Your task to perform on an android device: create a new album in the google photos Image 0: 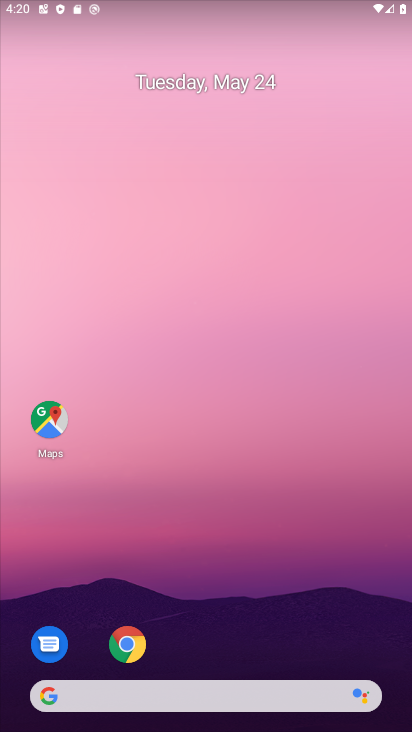
Step 0: drag from (214, 676) to (186, 439)
Your task to perform on an android device: create a new album in the google photos Image 1: 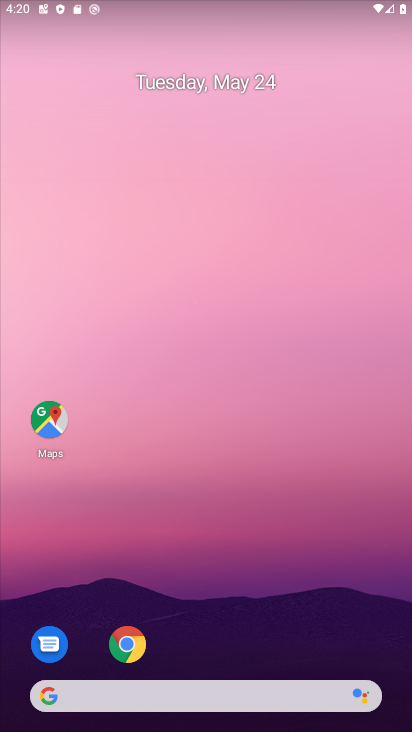
Step 1: drag from (224, 625) to (178, 233)
Your task to perform on an android device: create a new album in the google photos Image 2: 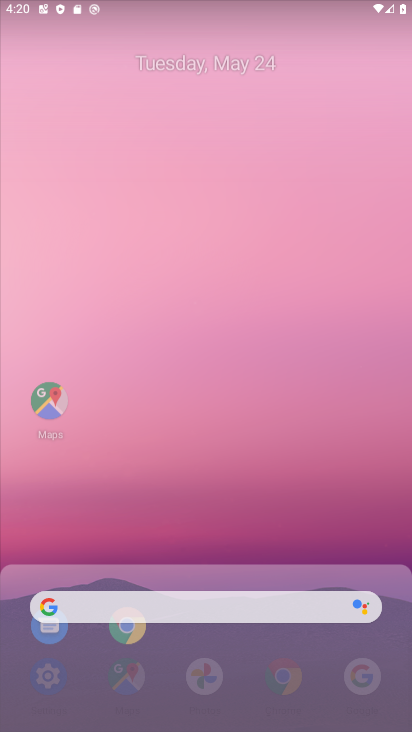
Step 2: click (191, 171)
Your task to perform on an android device: create a new album in the google photos Image 3: 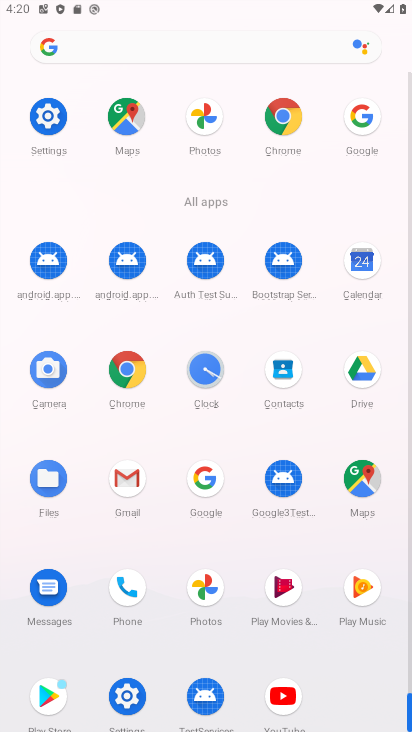
Step 3: drag from (245, 642) to (241, 125)
Your task to perform on an android device: create a new album in the google photos Image 4: 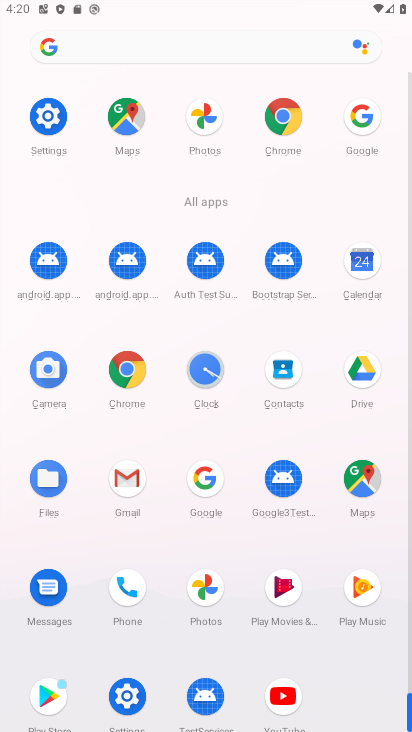
Step 4: drag from (288, 524) to (204, 39)
Your task to perform on an android device: create a new album in the google photos Image 5: 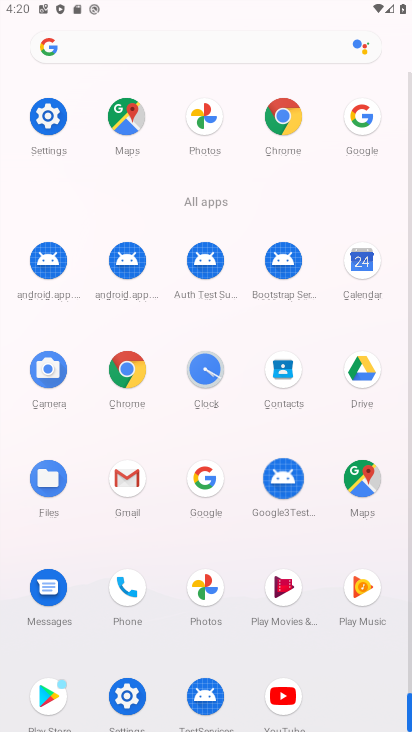
Step 5: drag from (208, 571) to (120, 53)
Your task to perform on an android device: create a new album in the google photos Image 6: 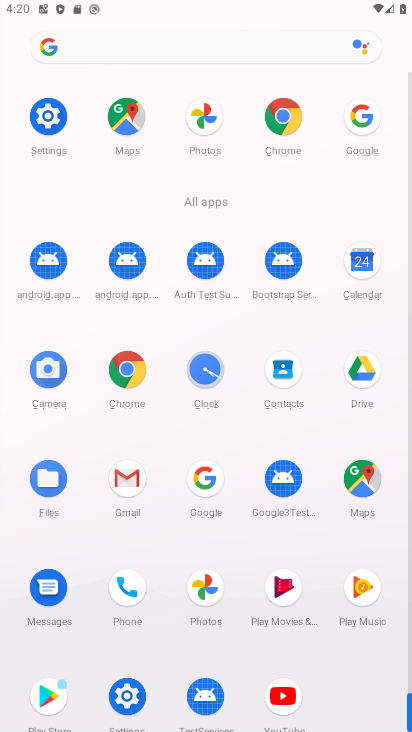
Step 6: click (201, 594)
Your task to perform on an android device: create a new album in the google photos Image 7: 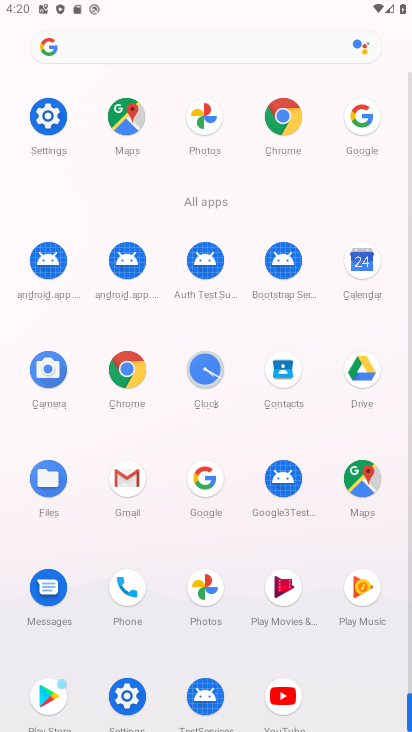
Step 7: click (198, 579)
Your task to perform on an android device: create a new album in the google photos Image 8: 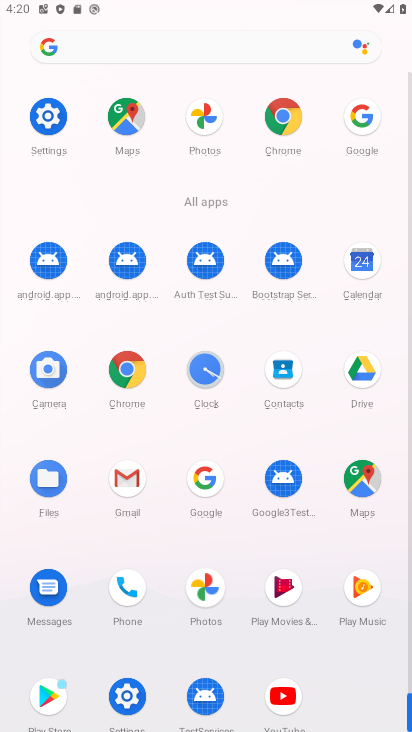
Step 8: click (198, 579)
Your task to perform on an android device: create a new album in the google photos Image 9: 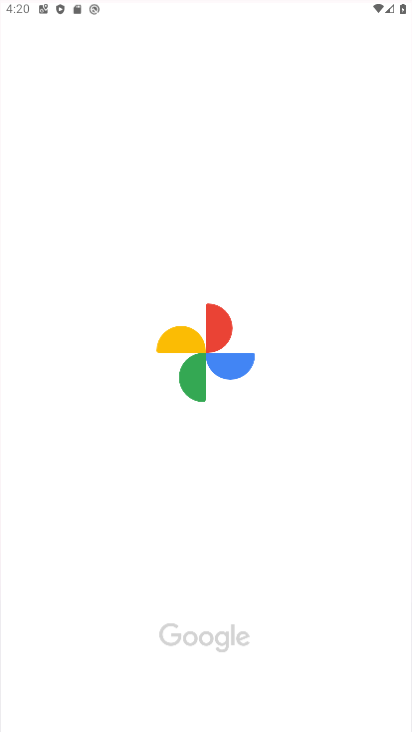
Step 9: click (198, 576)
Your task to perform on an android device: create a new album in the google photos Image 10: 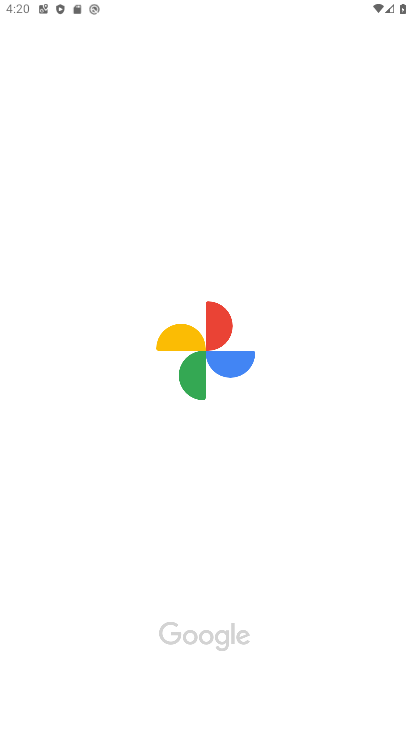
Step 10: click (199, 578)
Your task to perform on an android device: create a new album in the google photos Image 11: 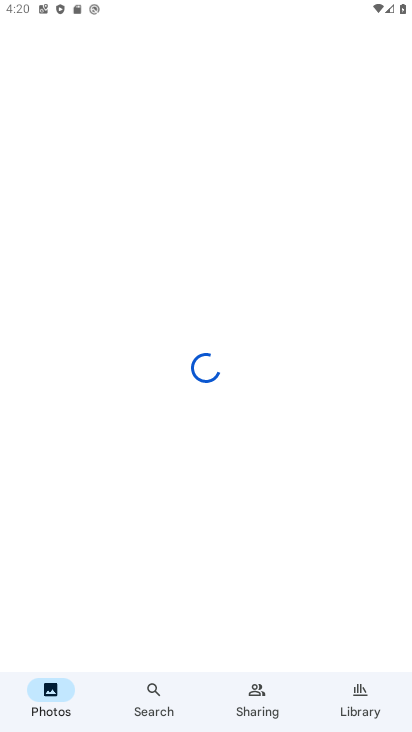
Step 11: click (206, 352)
Your task to perform on an android device: create a new album in the google photos Image 12: 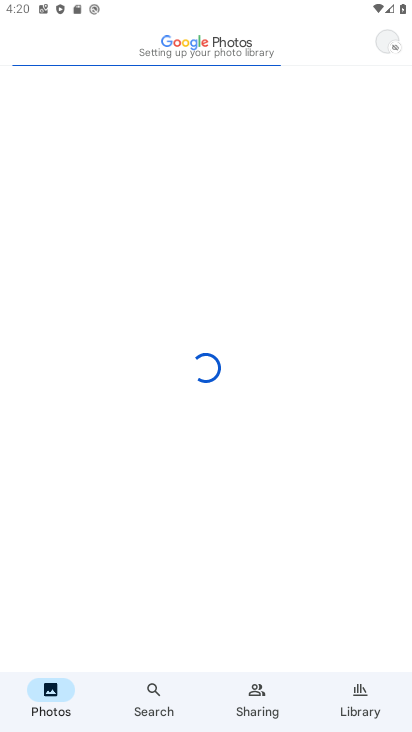
Step 12: click (206, 352)
Your task to perform on an android device: create a new album in the google photos Image 13: 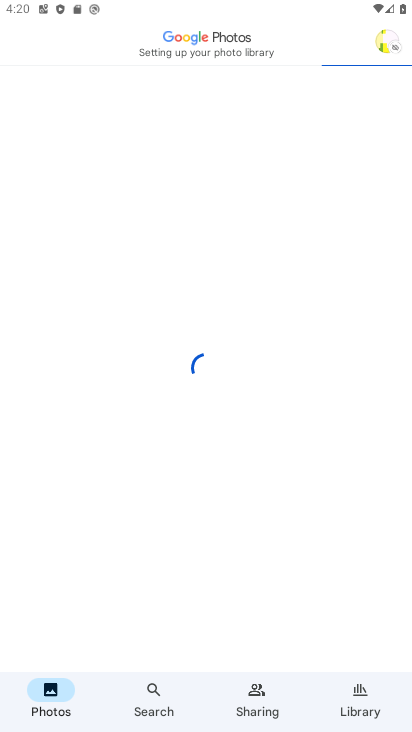
Step 13: click (204, 354)
Your task to perform on an android device: create a new album in the google photos Image 14: 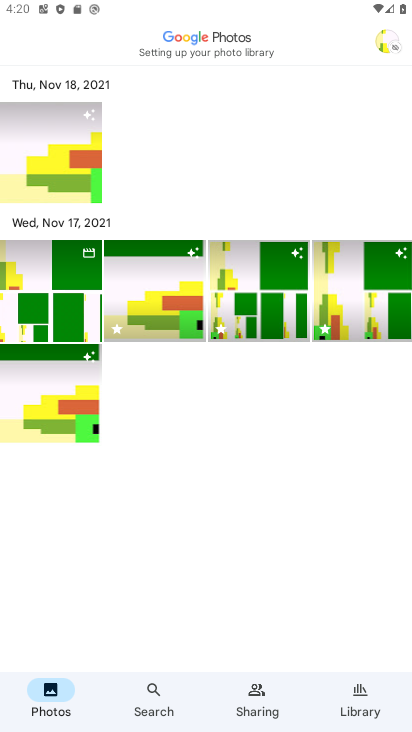
Step 14: task complete